Your task to perform on an android device: all mails in gmail Image 0: 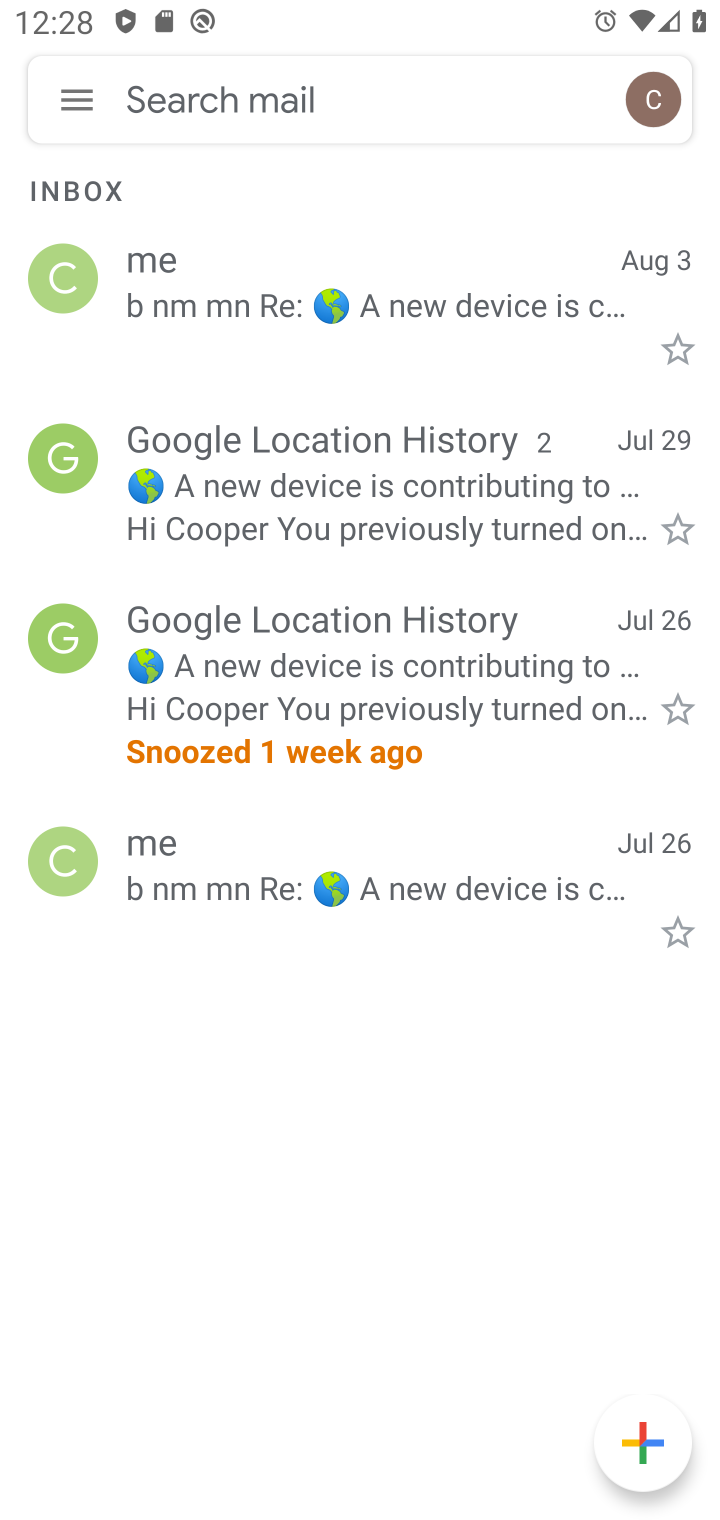
Step 0: task complete